Your task to perform on an android device: Do I have any events this weekend? Image 0: 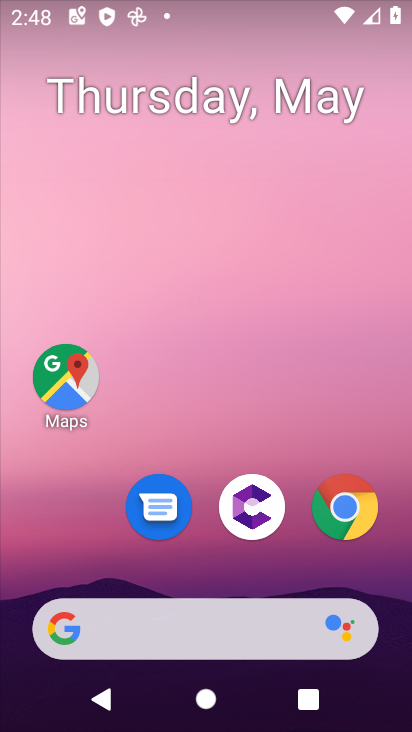
Step 0: press home button
Your task to perform on an android device: Do I have any events this weekend? Image 1: 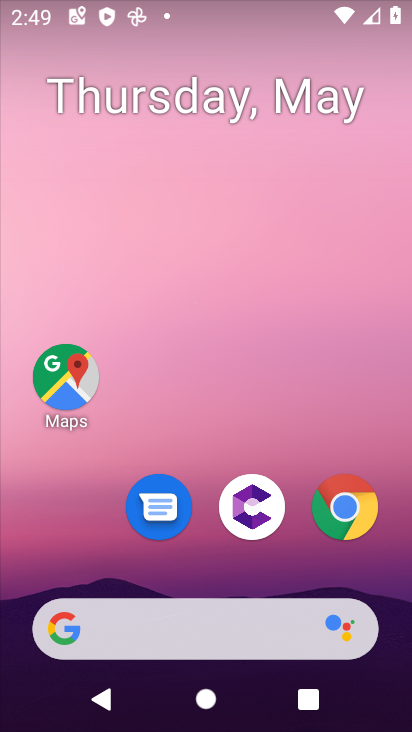
Step 1: drag from (325, 446) to (339, 30)
Your task to perform on an android device: Do I have any events this weekend? Image 2: 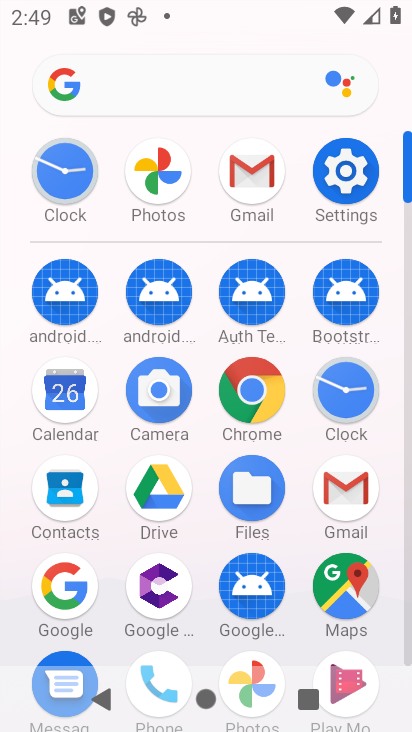
Step 2: click (51, 408)
Your task to perform on an android device: Do I have any events this weekend? Image 3: 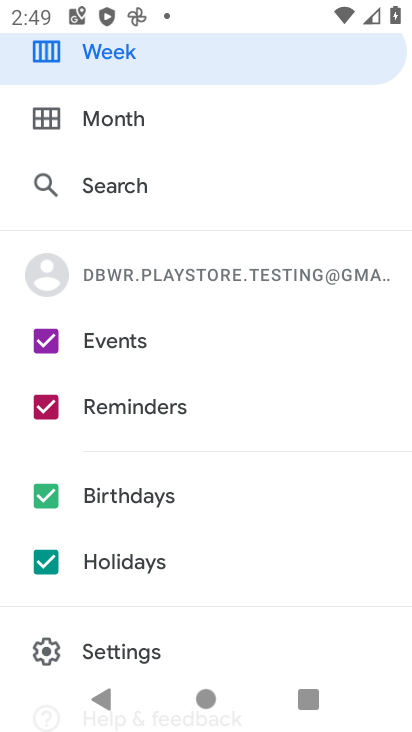
Step 3: drag from (273, 122) to (403, 523)
Your task to perform on an android device: Do I have any events this weekend? Image 4: 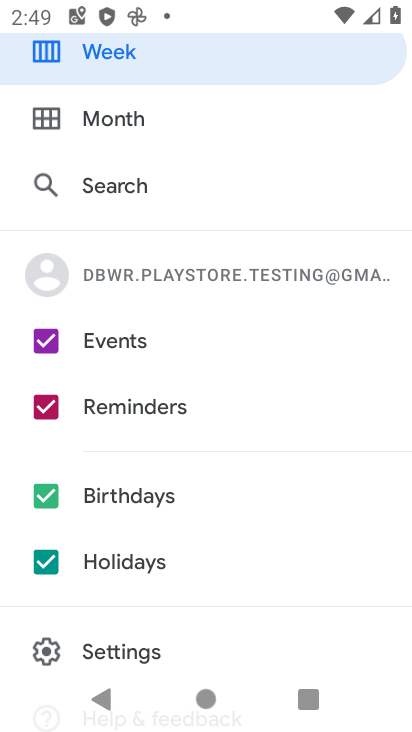
Step 4: drag from (251, 192) to (261, 702)
Your task to perform on an android device: Do I have any events this weekend? Image 5: 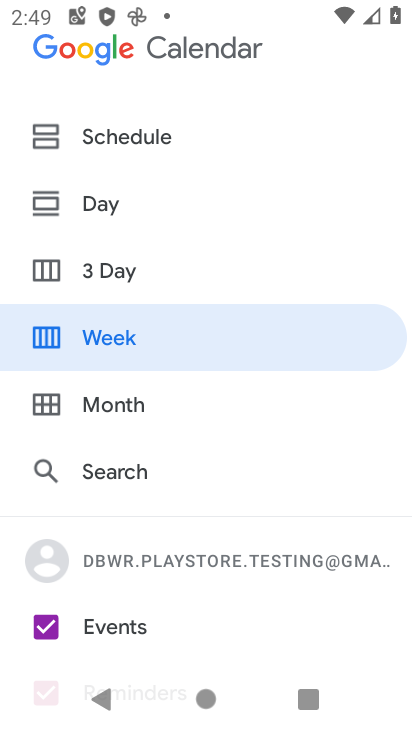
Step 5: click (199, 411)
Your task to perform on an android device: Do I have any events this weekend? Image 6: 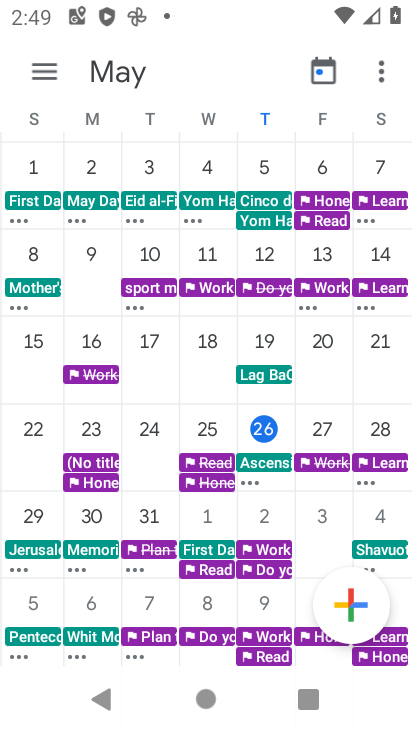
Step 6: task complete